Your task to perform on an android device: add a contact Image 0: 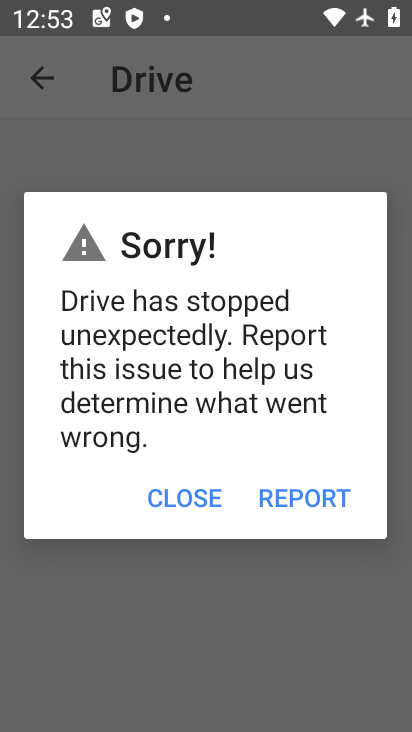
Step 0: click (175, 495)
Your task to perform on an android device: add a contact Image 1: 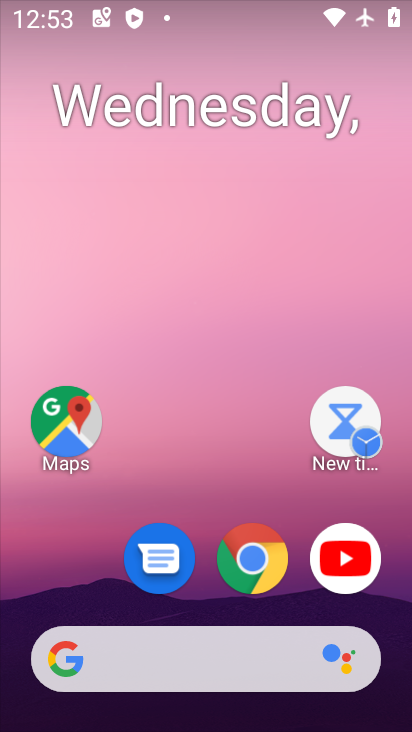
Step 1: drag from (249, 708) to (156, 167)
Your task to perform on an android device: add a contact Image 2: 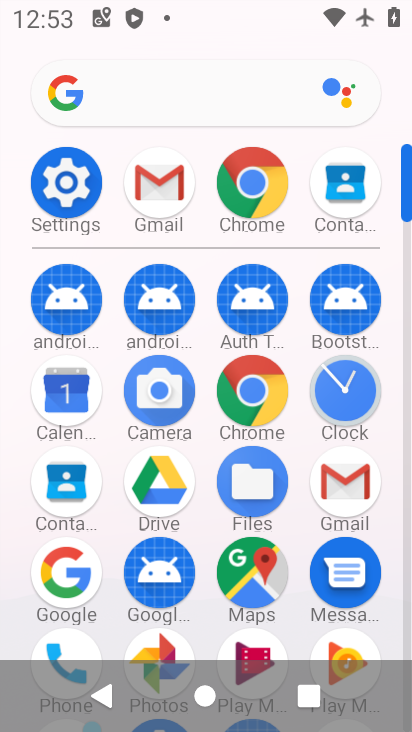
Step 2: drag from (255, 628) to (114, 88)
Your task to perform on an android device: add a contact Image 3: 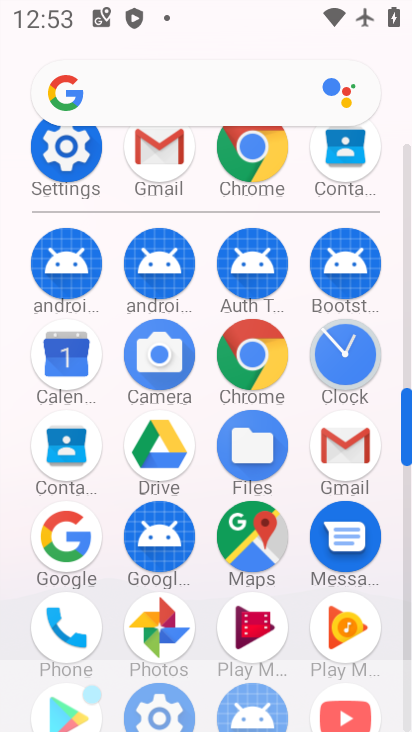
Step 3: drag from (214, 531) to (127, 181)
Your task to perform on an android device: add a contact Image 4: 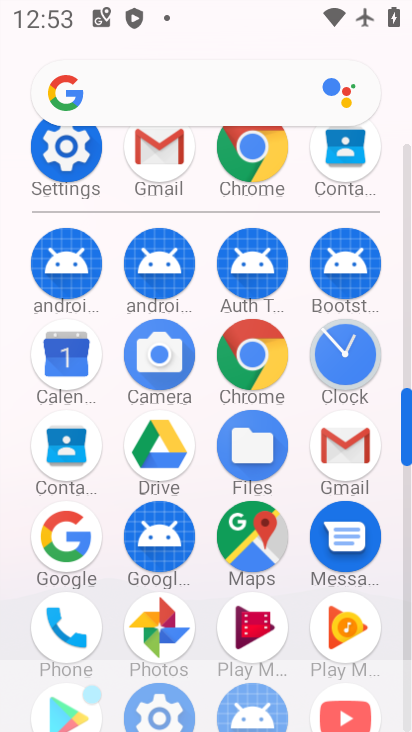
Step 4: click (64, 444)
Your task to perform on an android device: add a contact Image 5: 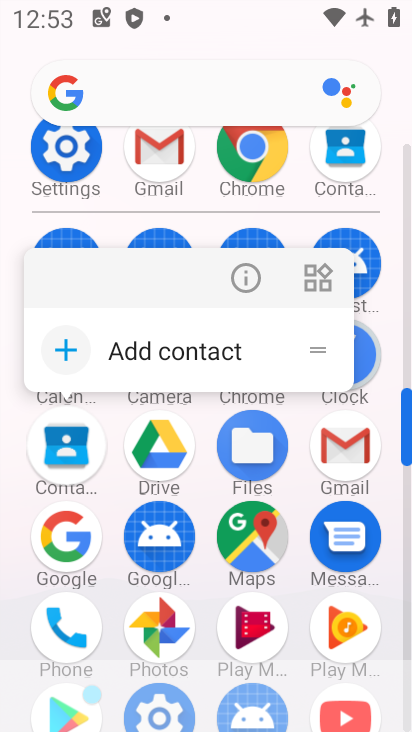
Step 5: click (70, 445)
Your task to perform on an android device: add a contact Image 6: 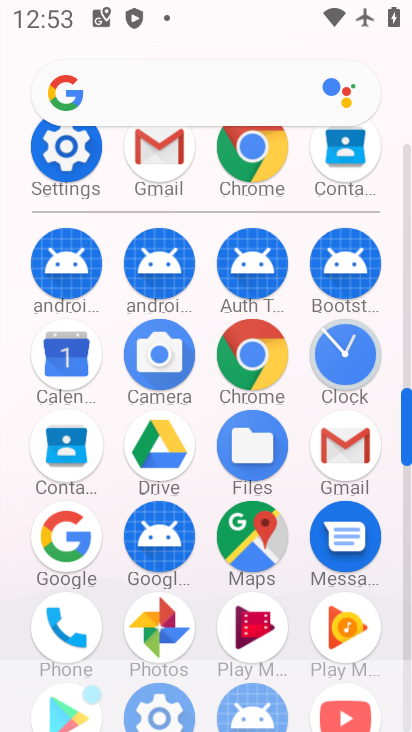
Step 6: click (70, 448)
Your task to perform on an android device: add a contact Image 7: 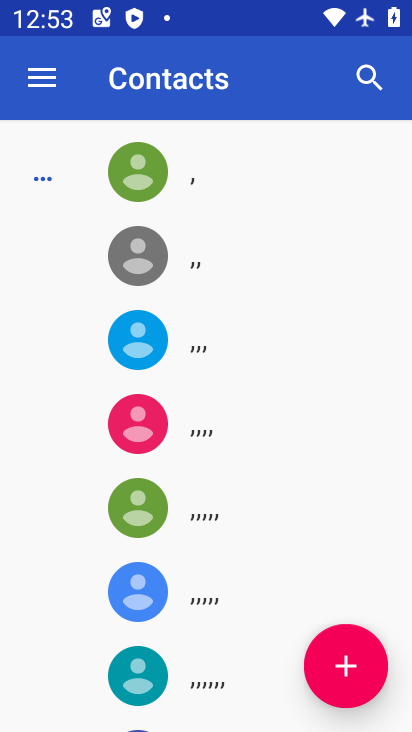
Step 7: click (136, 361)
Your task to perform on an android device: add a contact Image 8: 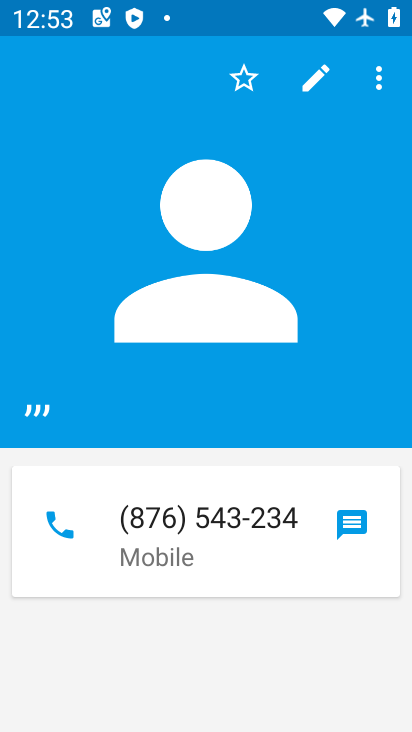
Step 8: click (349, 679)
Your task to perform on an android device: add a contact Image 9: 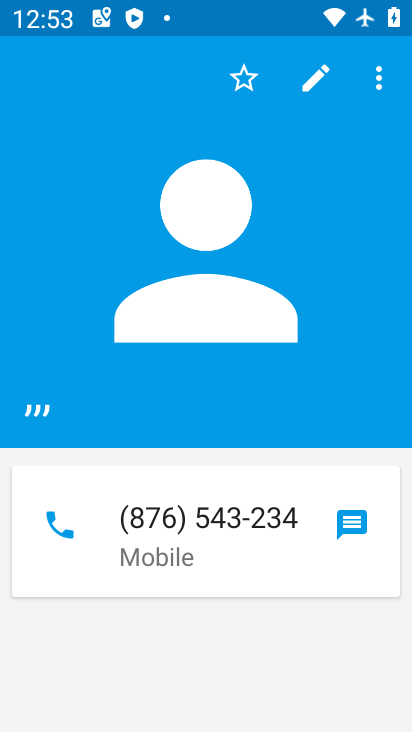
Step 9: click (347, 677)
Your task to perform on an android device: add a contact Image 10: 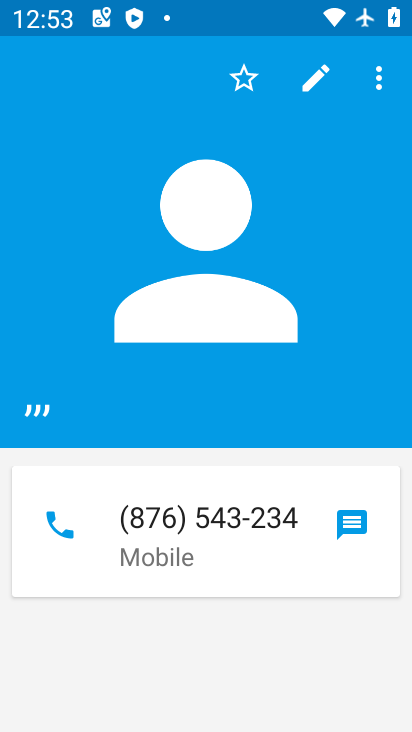
Step 10: click (342, 674)
Your task to perform on an android device: add a contact Image 11: 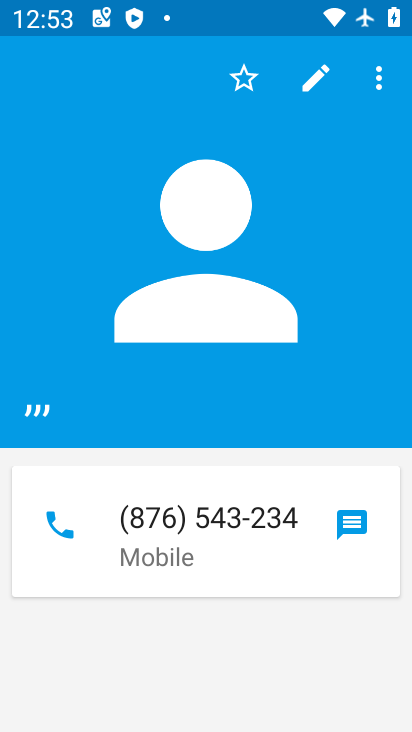
Step 11: click (342, 638)
Your task to perform on an android device: add a contact Image 12: 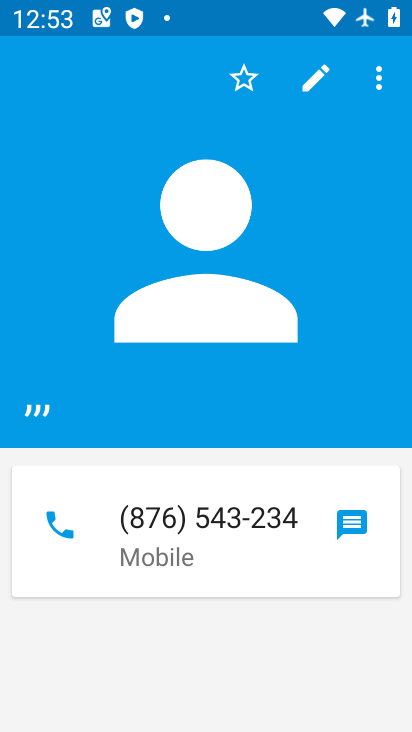
Step 12: press back button
Your task to perform on an android device: add a contact Image 13: 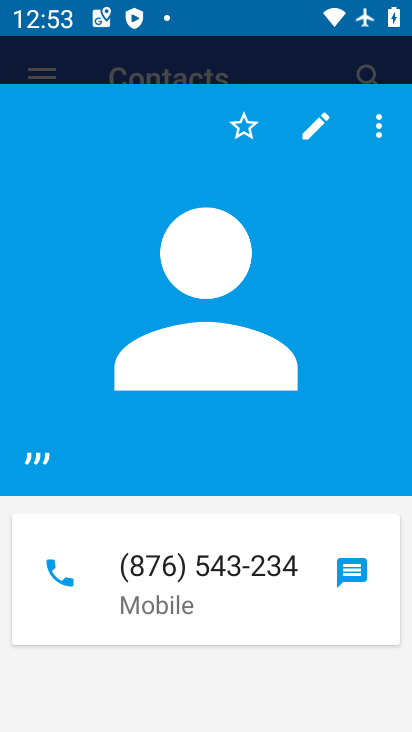
Step 13: press back button
Your task to perform on an android device: add a contact Image 14: 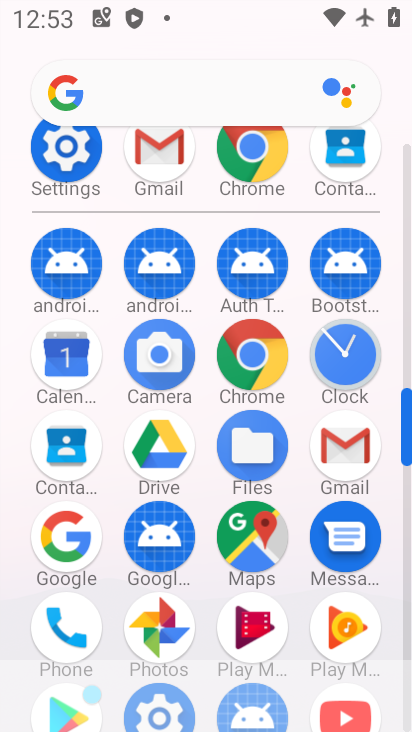
Step 14: click (65, 434)
Your task to perform on an android device: add a contact Image 15: 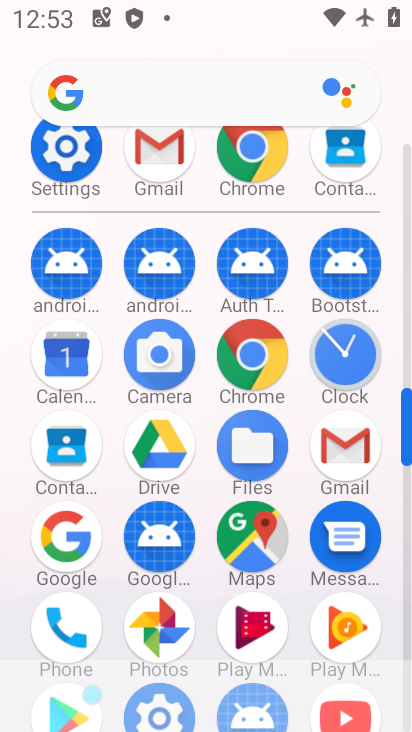
Step 15: click (58, 440)
Your task to perform on an android device: add a contact Image 16: 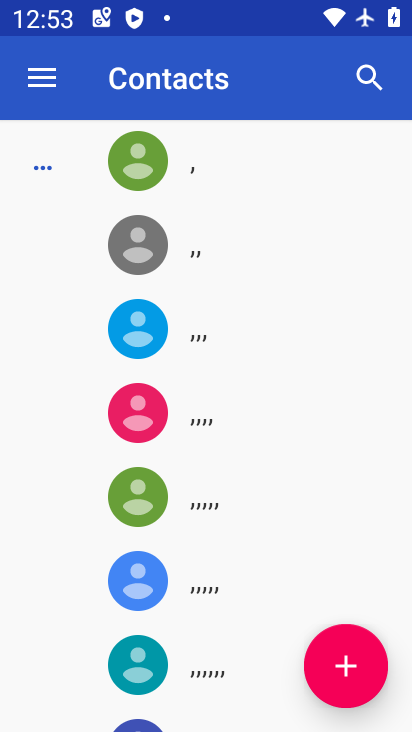
Step 16: click (341, 669)
Your task to perform on an android device: add a contact Image 17: 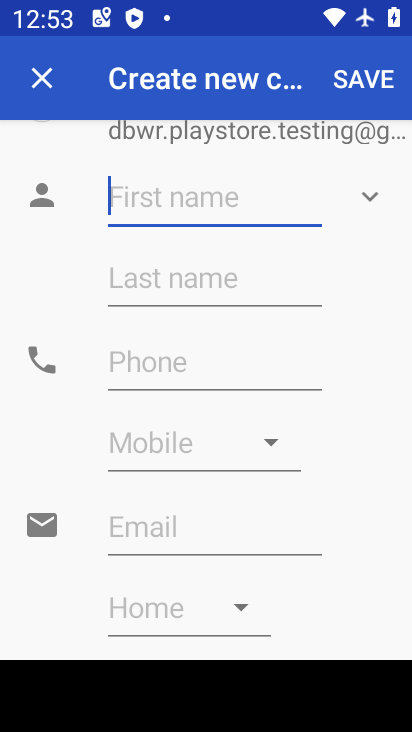
Step 17: type "jjhgh"
Your task to perform on an android device: add a contact Image 18: 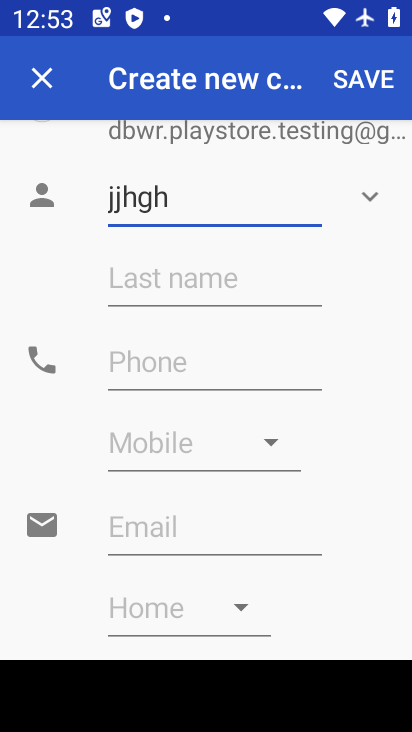
Step 18: click (129, 358)
Your task to perform on an android device: add a contact Image 19: 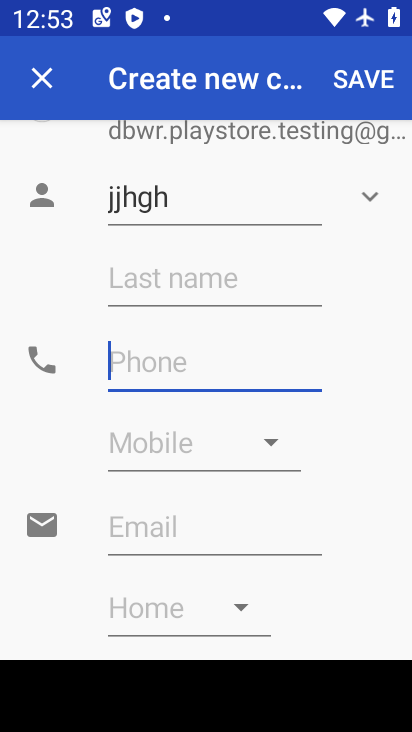
Step 19: type "7887687998"
Your task to perform on an android device: add a contact Image 20: 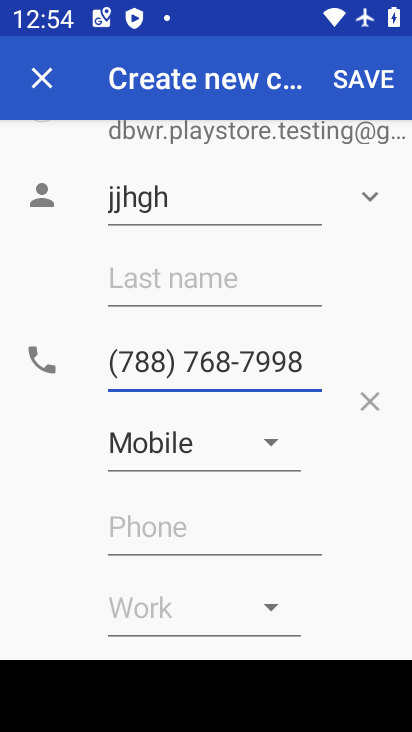
Step 20: click (351, 67)
Your task to perform on an android device: add a contact Image 21: 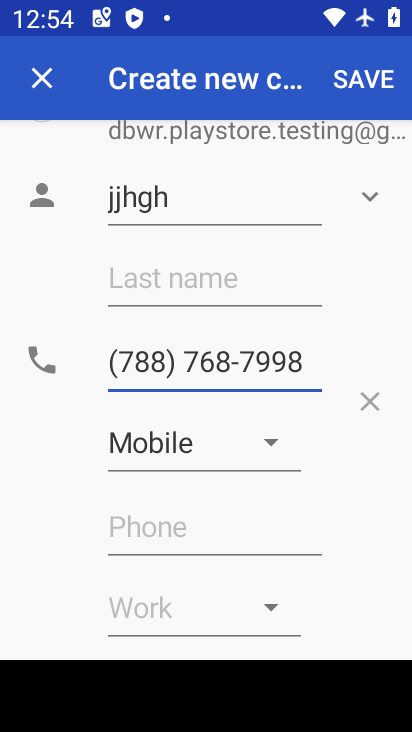
Step 21: click (351, 67)
Your task to perform on an android device: add a contact Image 22: 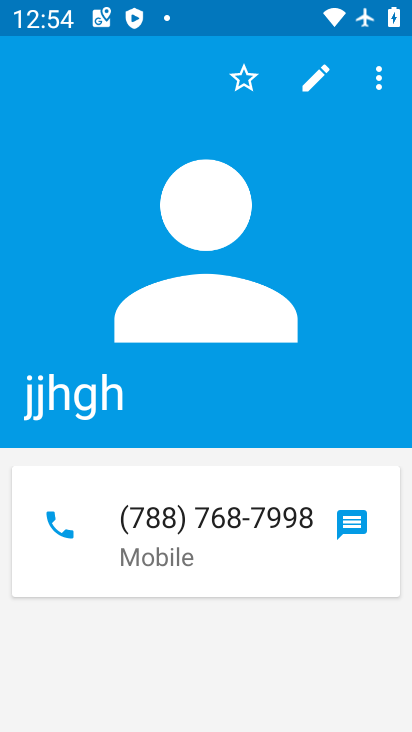
Step 22: task complete